Your task to perform on an android device: Is it going to rain this weekend? Image 0: 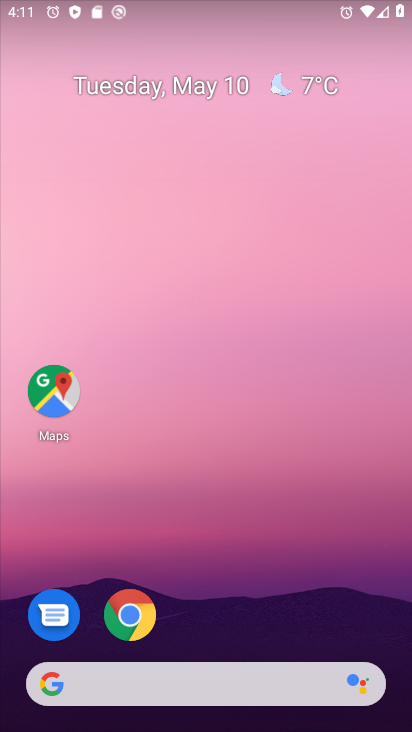
Step 0: drag from (252, 527) to (188, 4)
Your task to perform on an android device: Is it going to rain this weekend? Image 1: 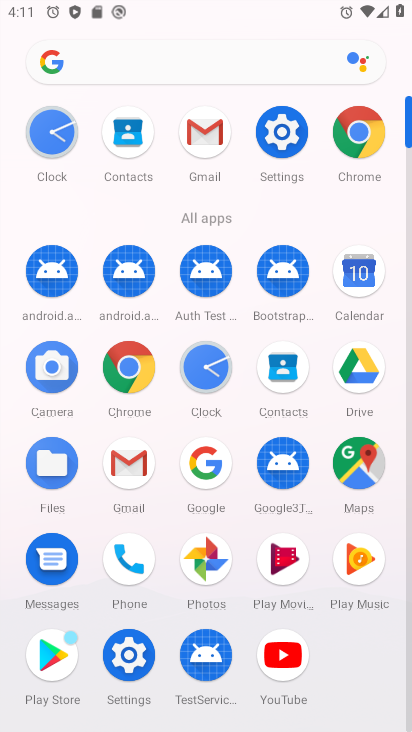
Step 1: drag from (10, 492) to (10, 203)
Your task to perform on an android device: Is it going to rain this weekend? Image 2: 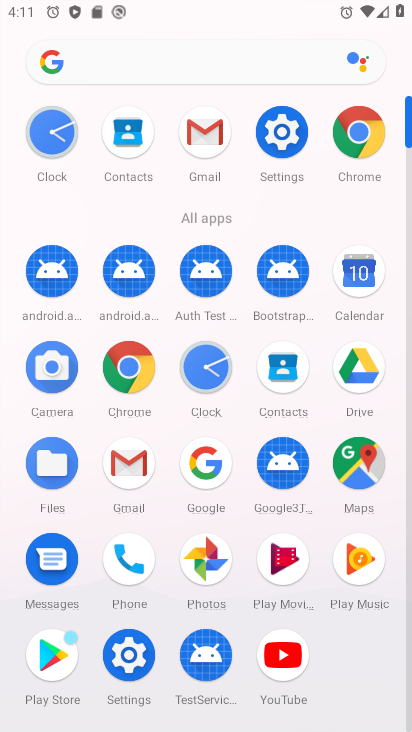
Step 2: click (128, 361)
Your task to perform on an android device: Is it going to rain this weekend? Image 3: 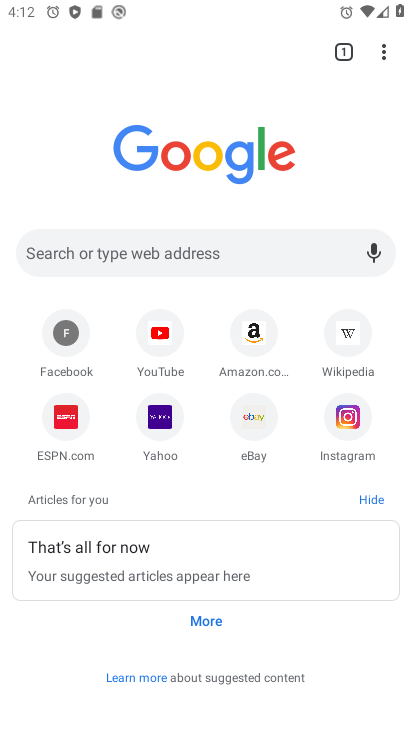
Step 3: click (246, 253)
Your task to perform on an android device: Is it going to rain this weekend? Image 4: 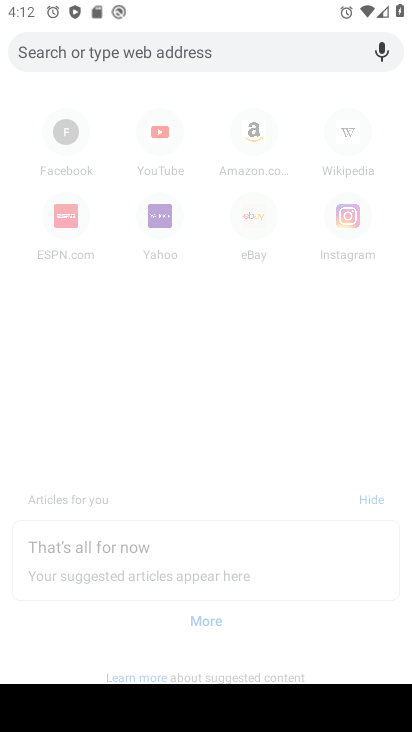
Step 4: type "Is it going to rain this weekend?"
Your task to perform on an android device: Is it going to rain this weekend? Image 5: 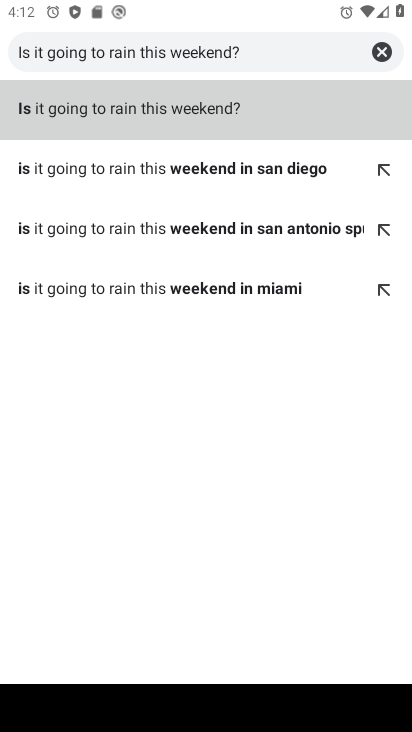
Step 5: click (265, 131)
Your task to perform on an android device: Is it going to rain this weekend? Image 6: 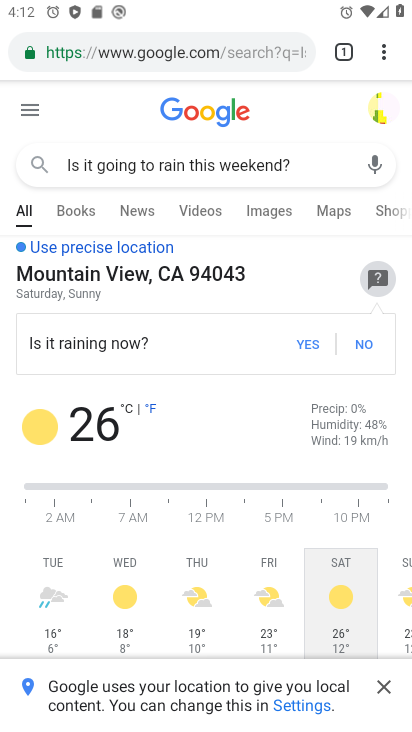
Step 6: task complete